Your task to perform on an android device: turn vacation reply on in the gmail app Image 0: 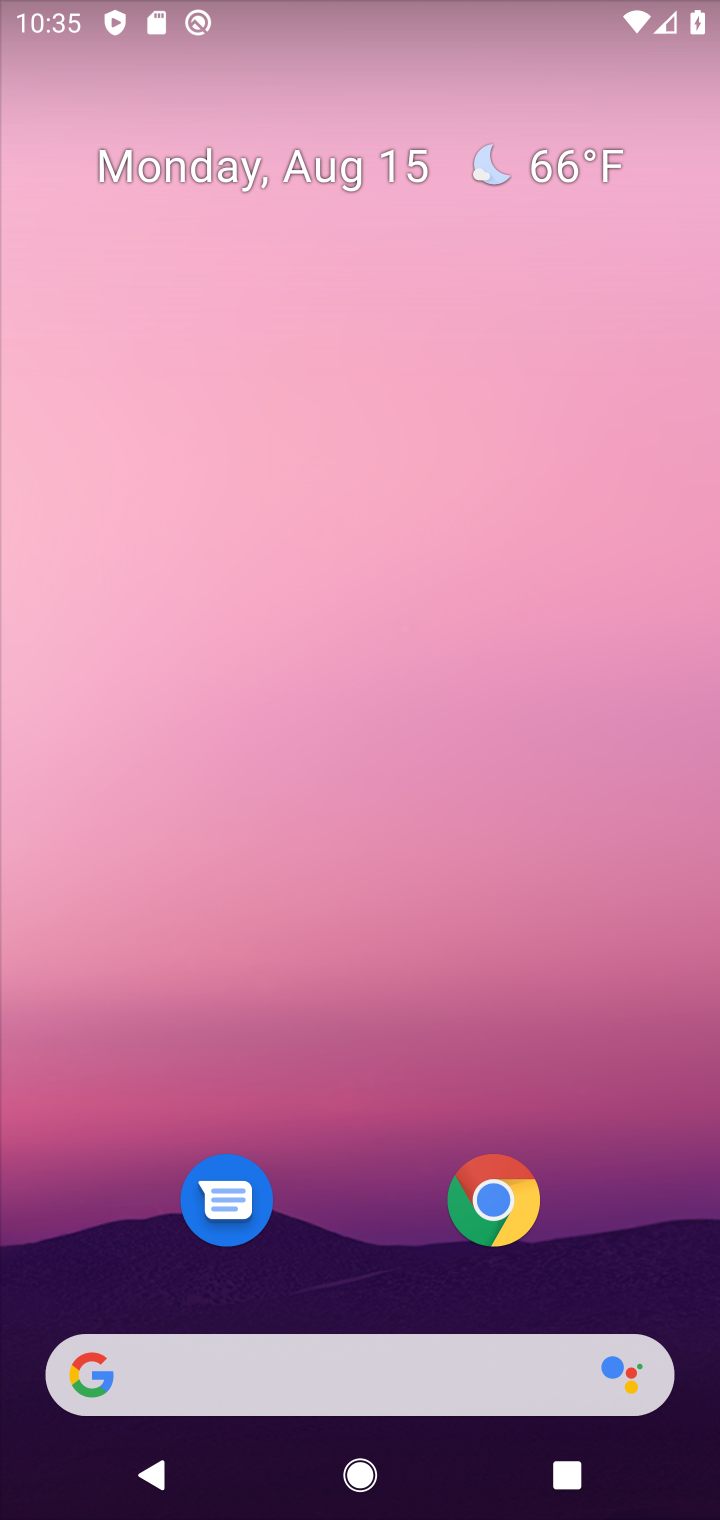
Step 0: drag from (349, 1292) to (378, 223)
Your task to perform on an android device: turn vacation reply on in the gmail app Image 1: 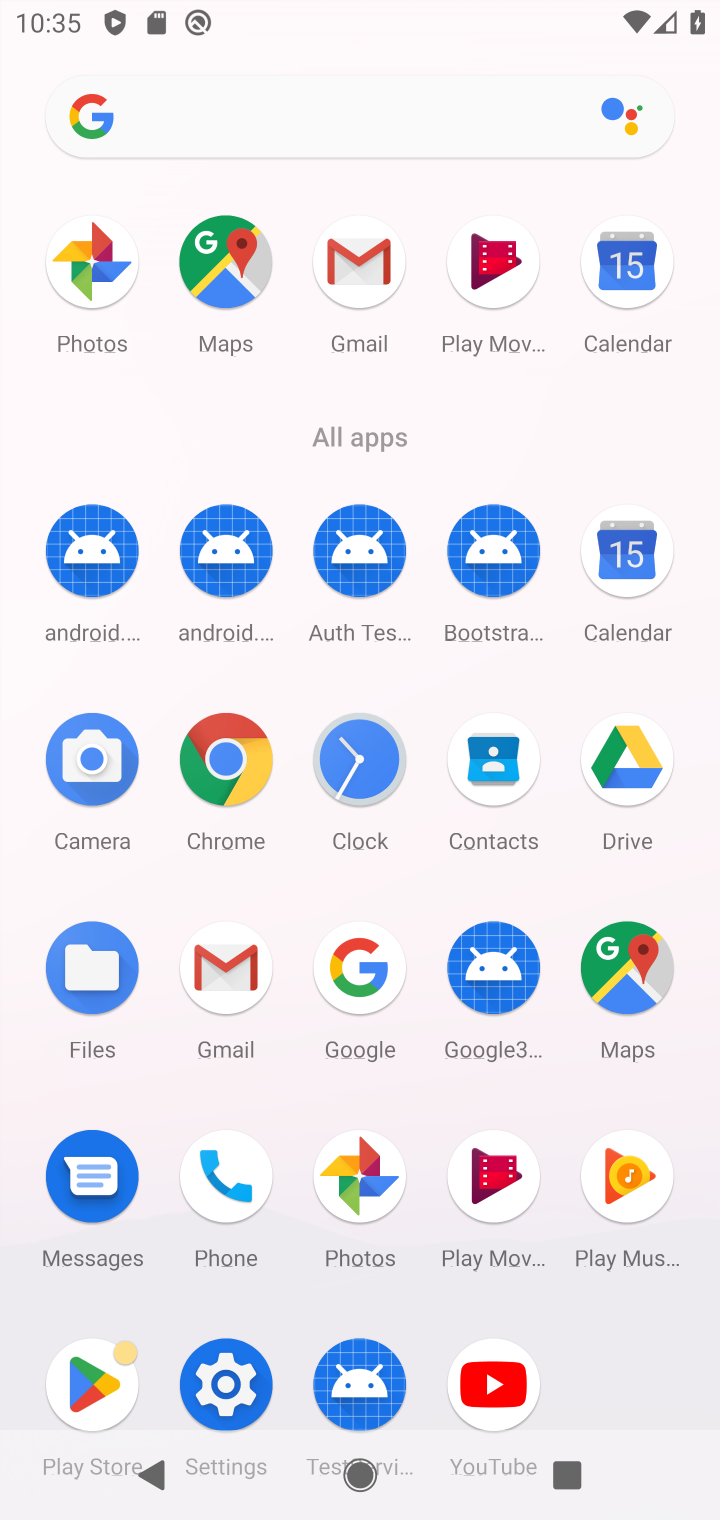
Step 1: click (228, 1005)
Your task to perform on an android device: turn vacation reply on in the gmail app Image 2: 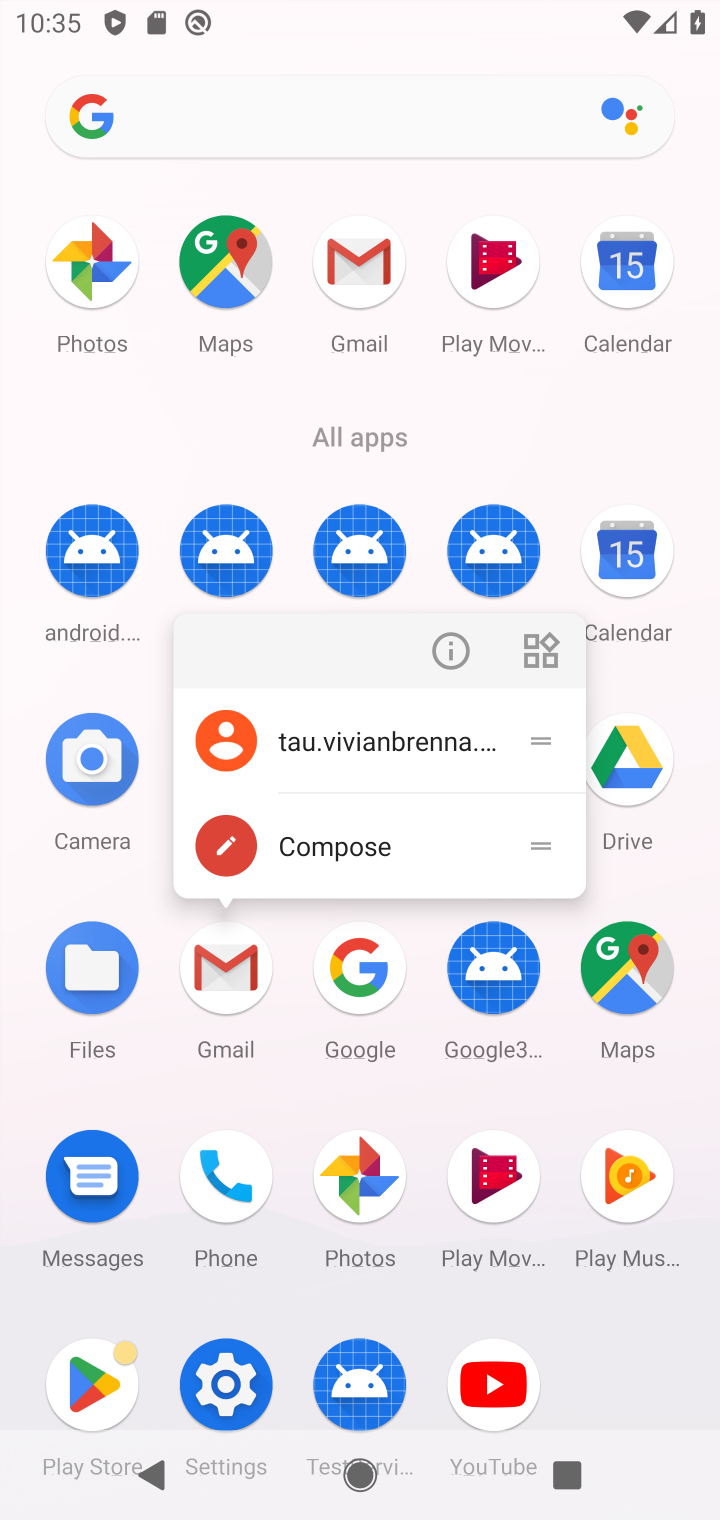
Step 2: click (227, 1028)
Your task to perform on an android device: turn vacation reply on in the gmail app Image 3: 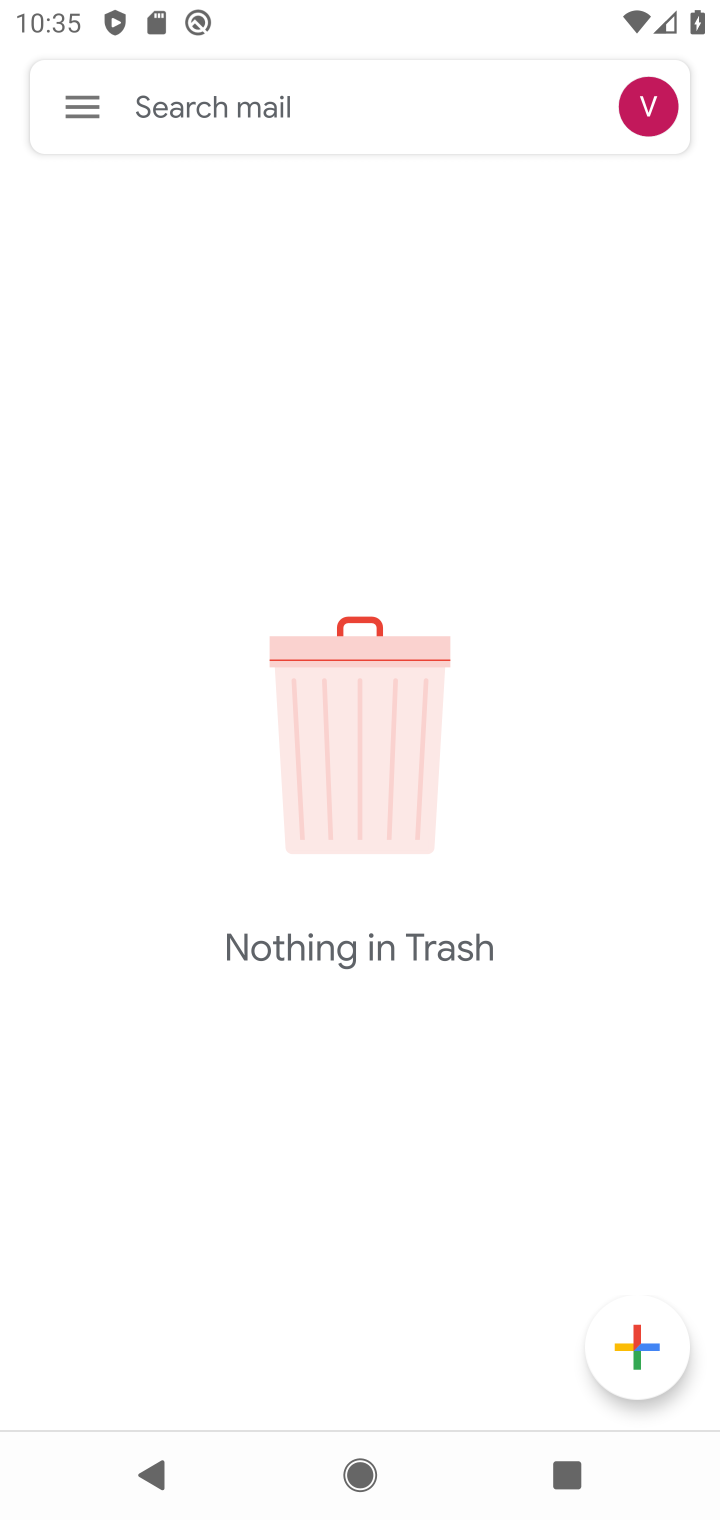
Step 3: click (229, 1036)
Your task to perform on an android device: turn vacation reply on in the gmail app Image 4: 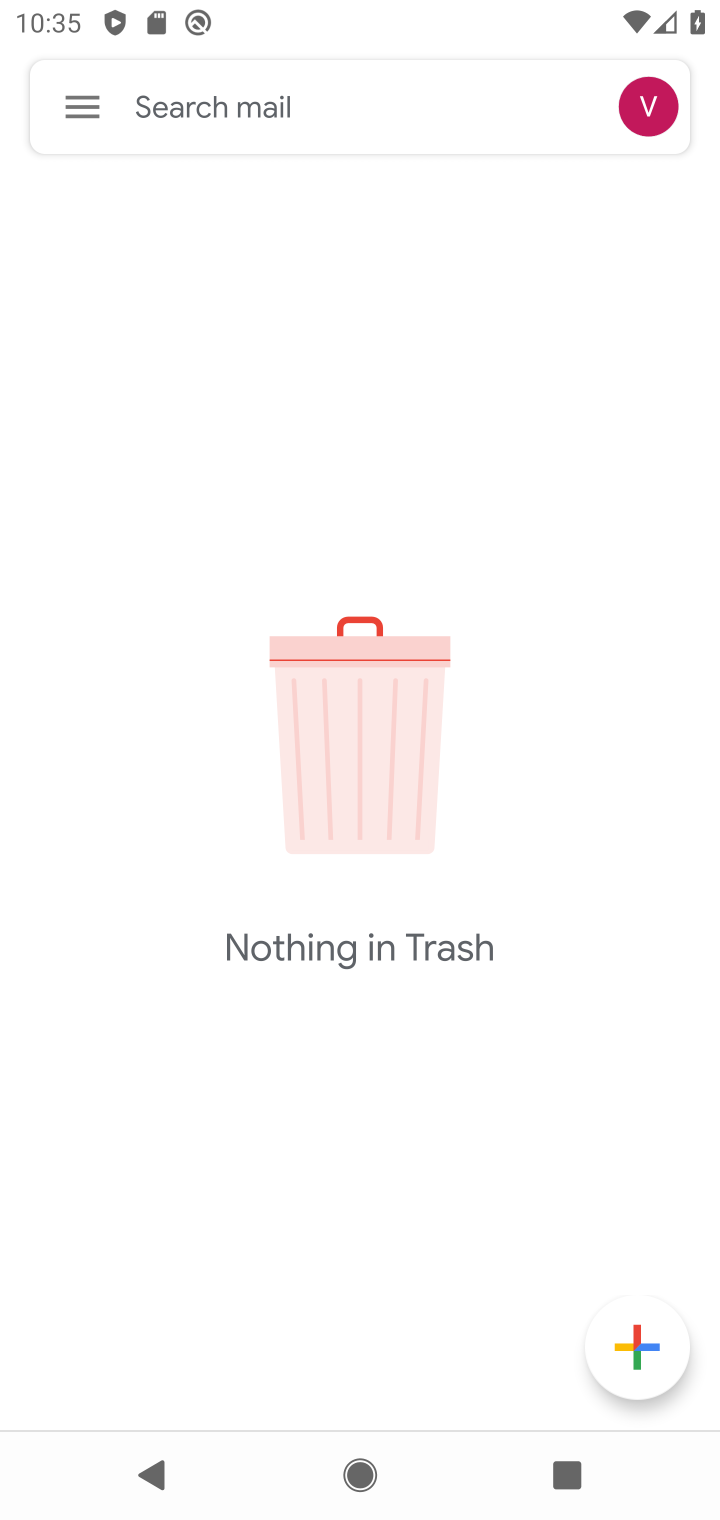
Step 4: click (81, 64)
Your task to perform on an android device: turn vacation reply on in the gmail app Image 5: 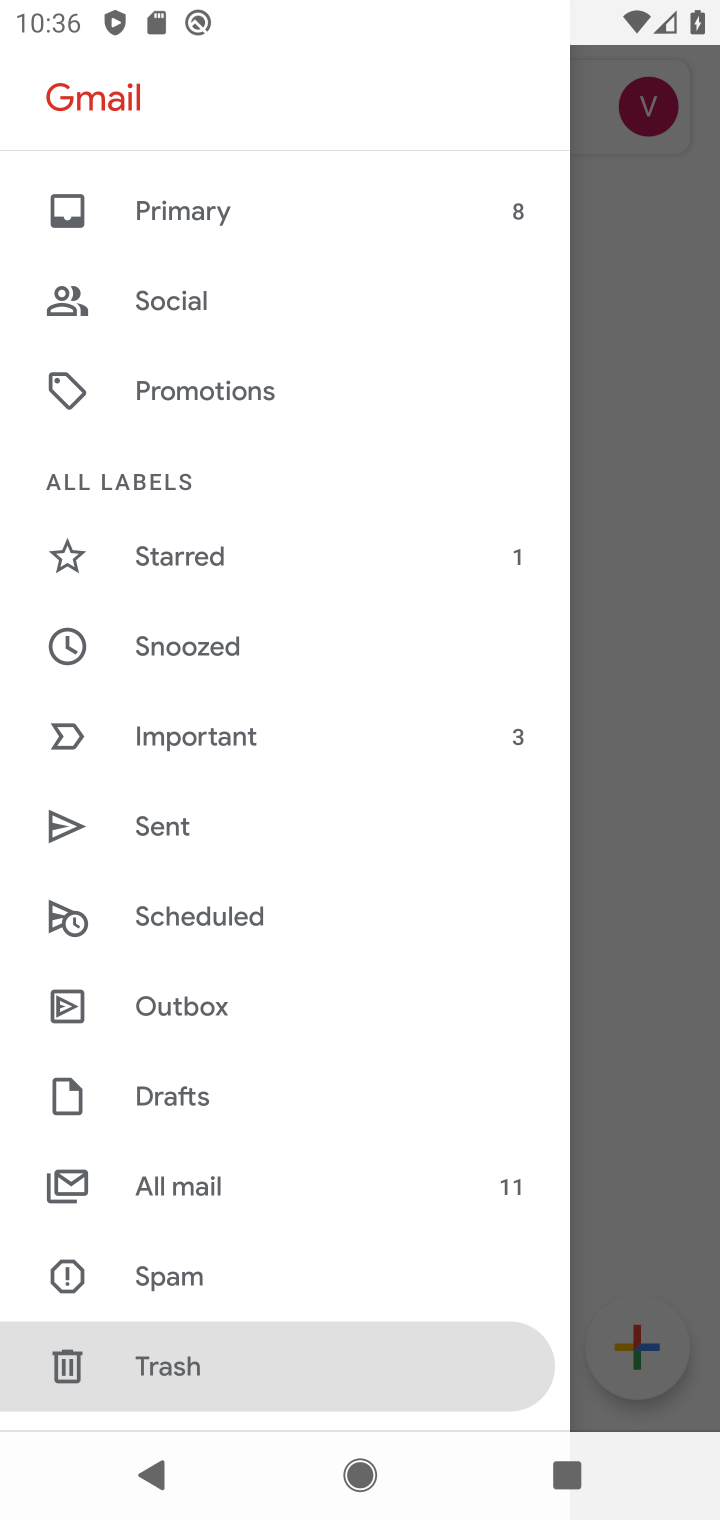
Step 5: drag from (233, 1140) to (294, 5)
Your task to perform on an android device: turn vacation reply on in the gmail app Image 6: 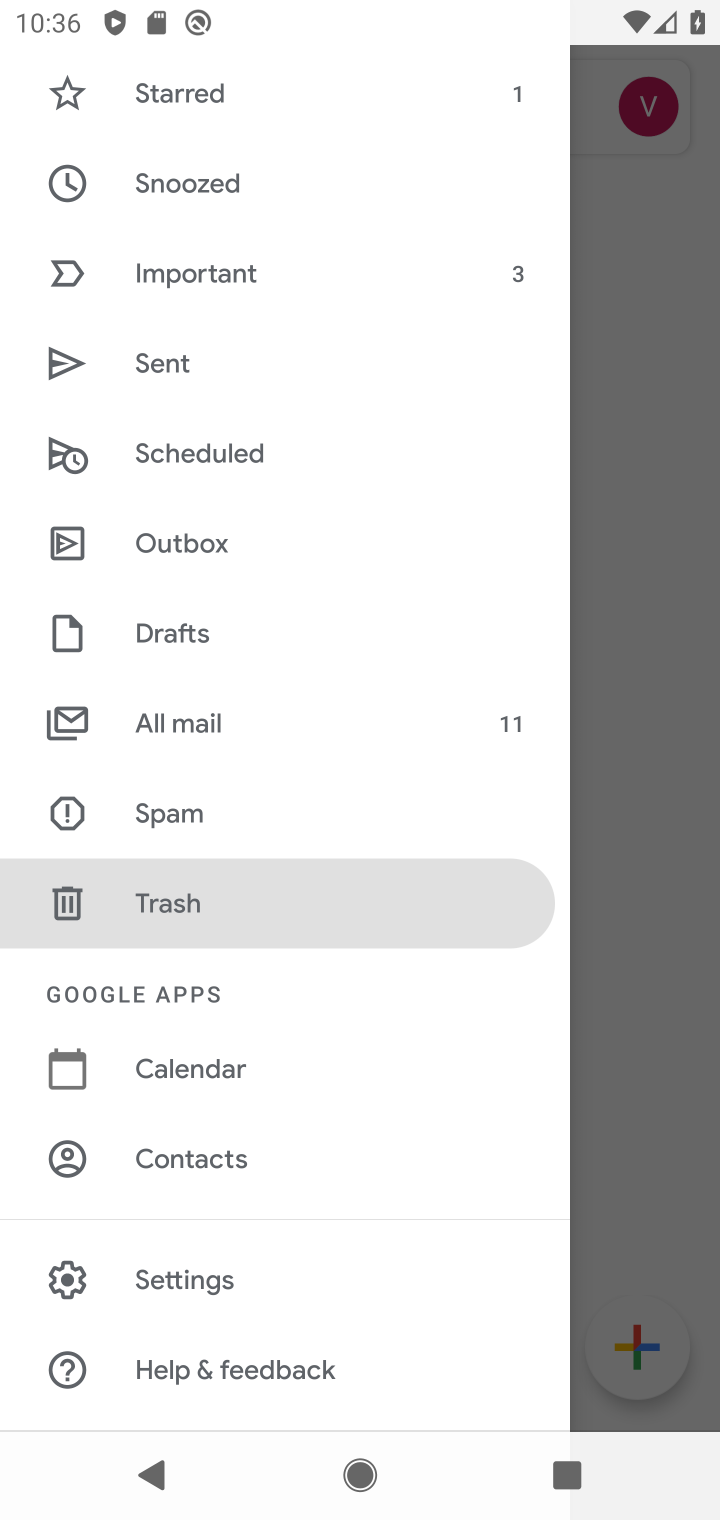
Step 6: click (207, 1287)
Your task to perform on an android device: turn vacation reply on in the gmail app Image 7: 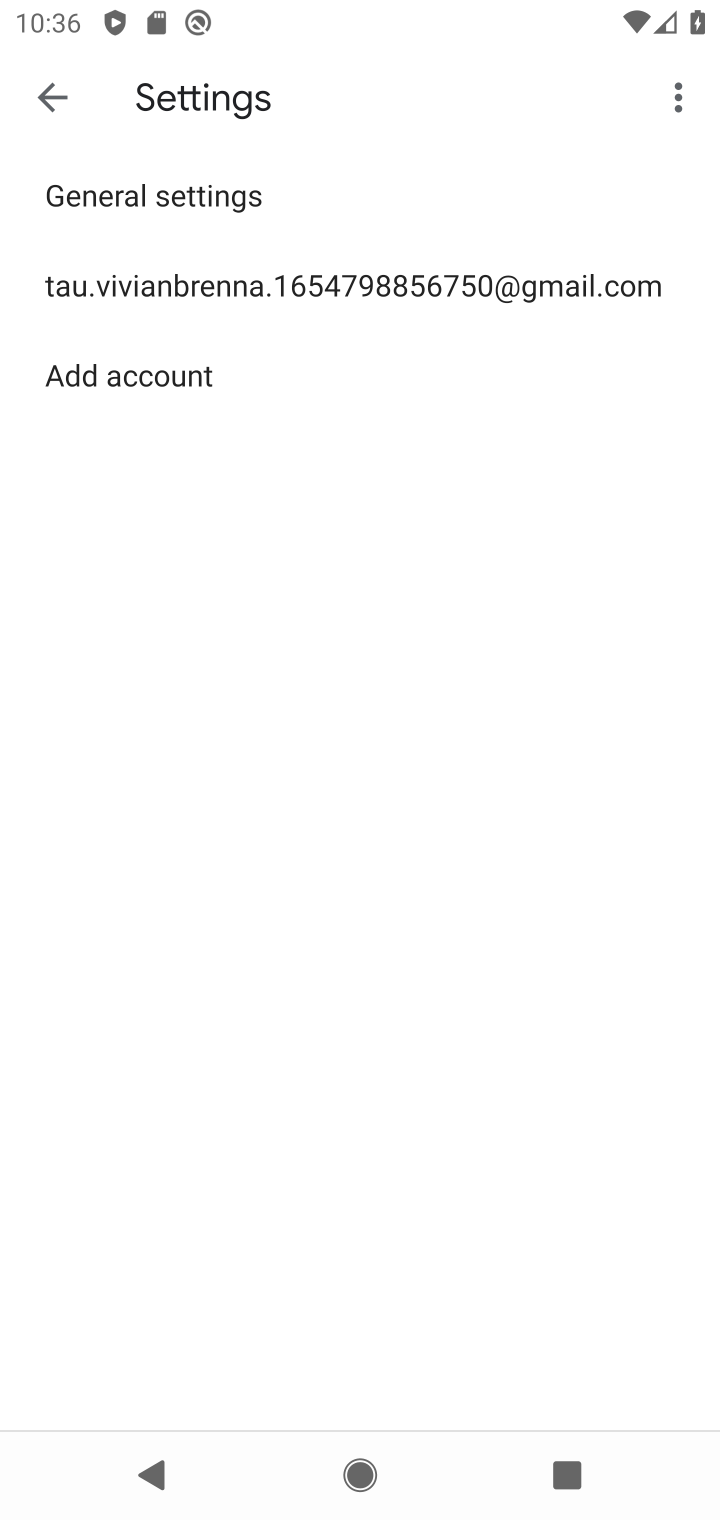
Step 7: click (222, 265)
Your task to perform on an android device: turn vacation reply on in the gmail app Image 8: 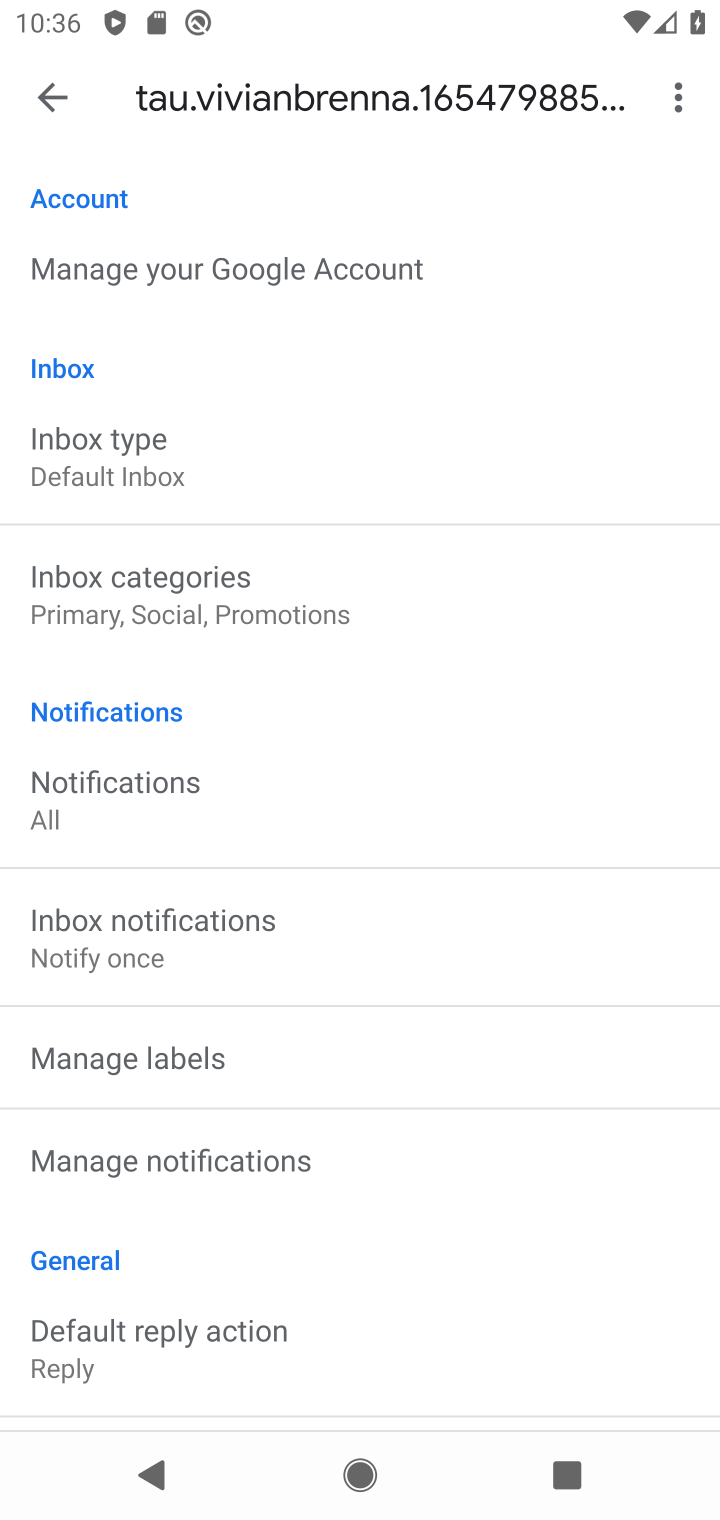
Step 8: drag from (208, 1234) to (284, 726)
Your task to perform on an android device: turn vacation reply on in the gmail app Image 9: 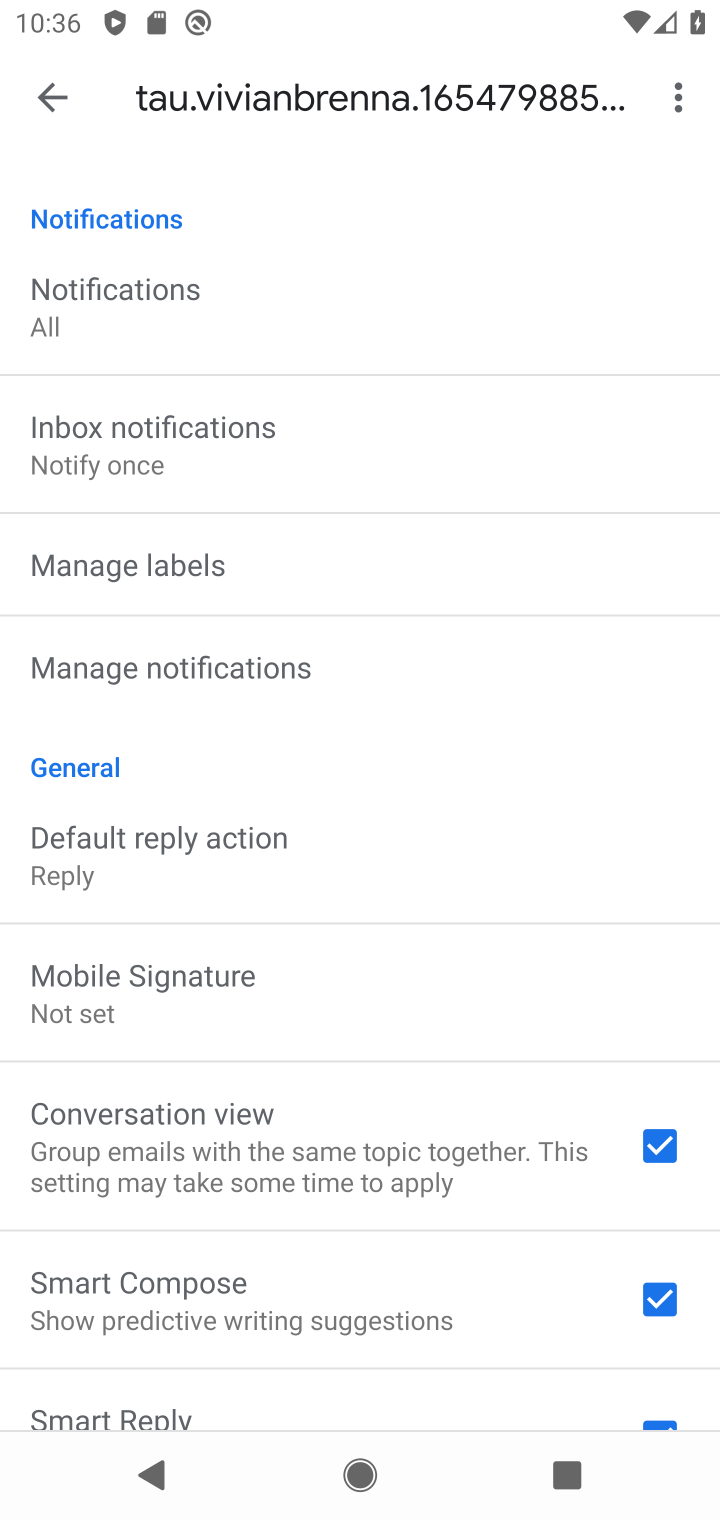
Step 9: drag from (254, 1333) to (300, 686)
Your task to perform on an android device: turn vacation reply on in the gmail app Image 10: 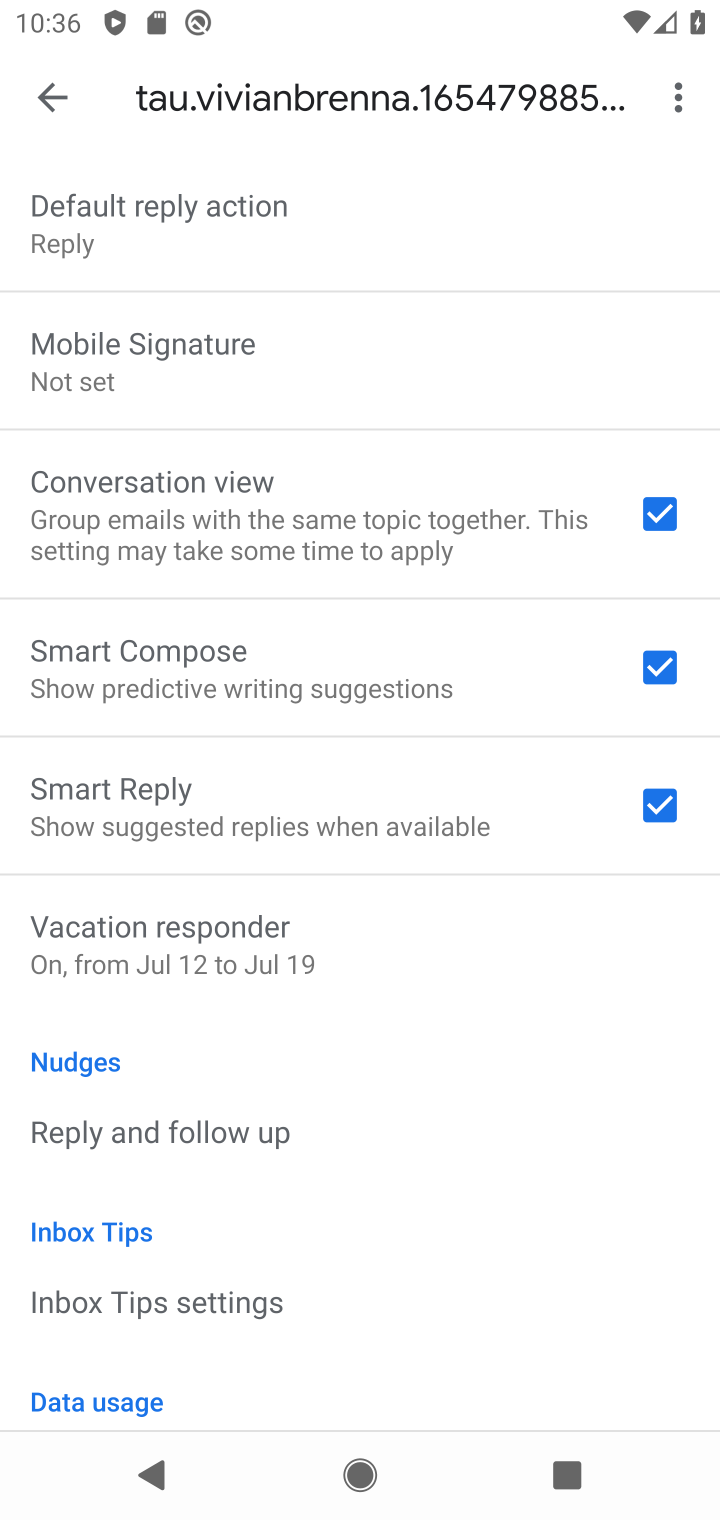
Step 10: click (191, 938)
Your task to perform on an android device: turn vacation reply on in the gmail app Image 11: 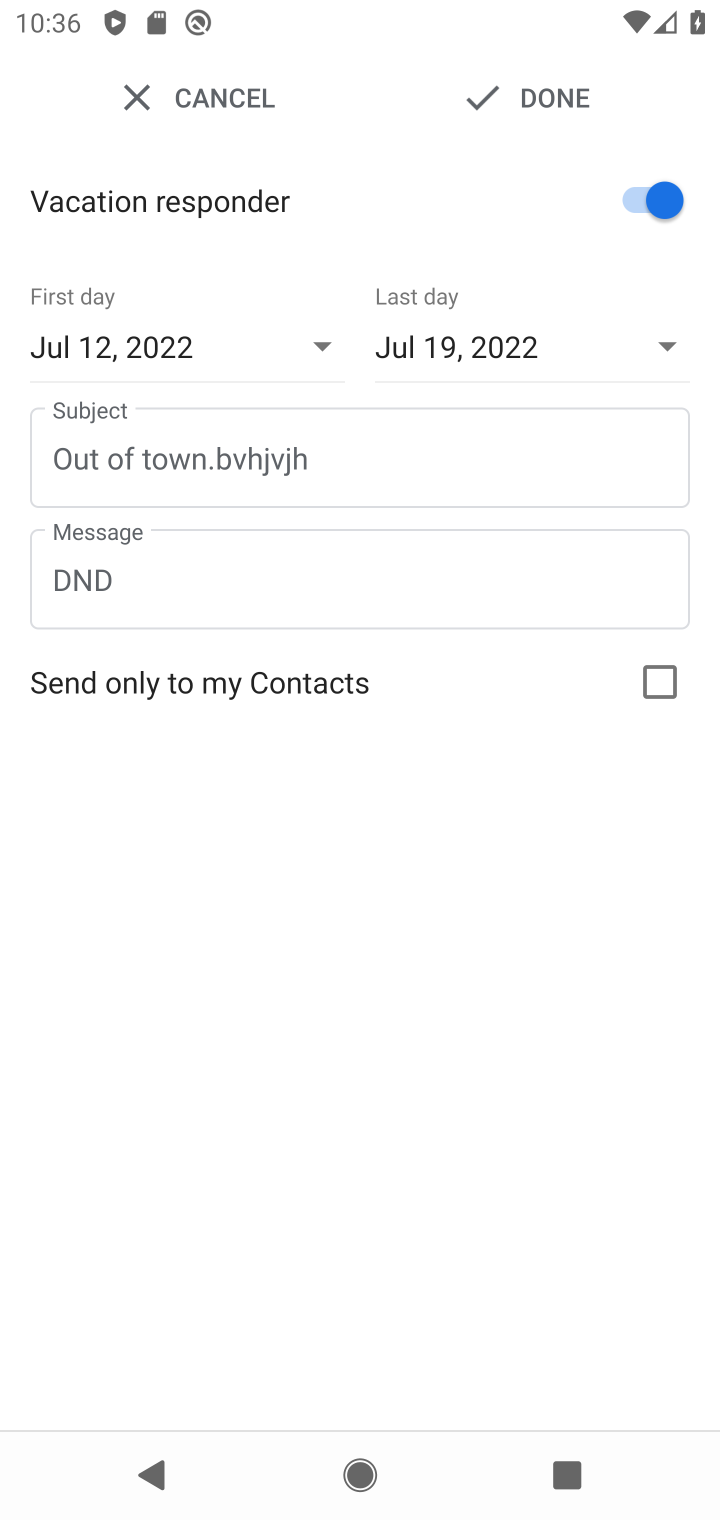
Step 11: task complete